Your task to perform on an android device: Open Amazon Image 0: 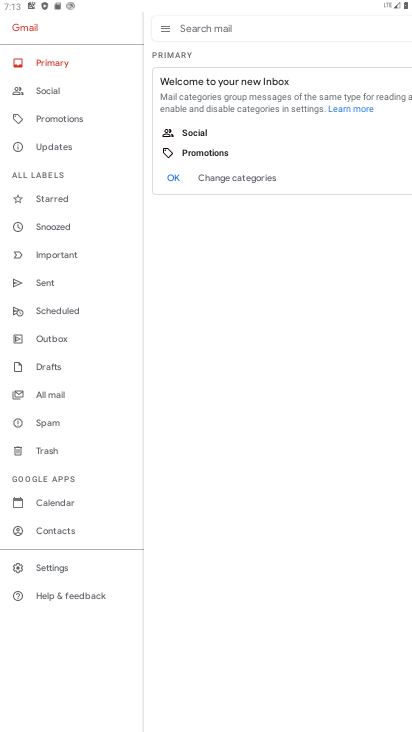
Step 0: press home button
Your task to perform on an android device: Open Amazon Image 1: 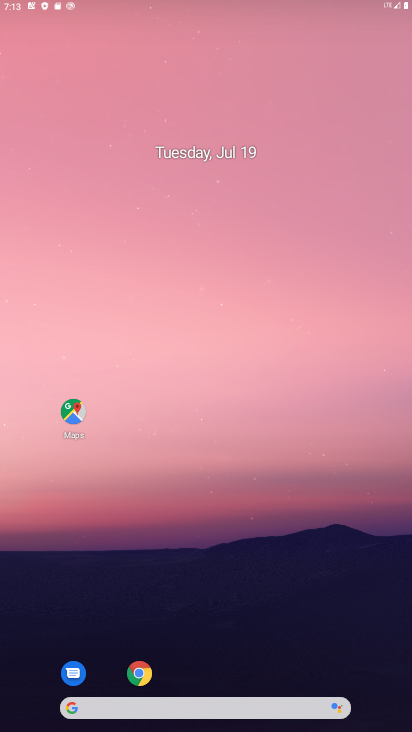
Step 1: drag from (341, 457) to (279, 9)
Your task to perform on an android device: Open Amazon Image 2: 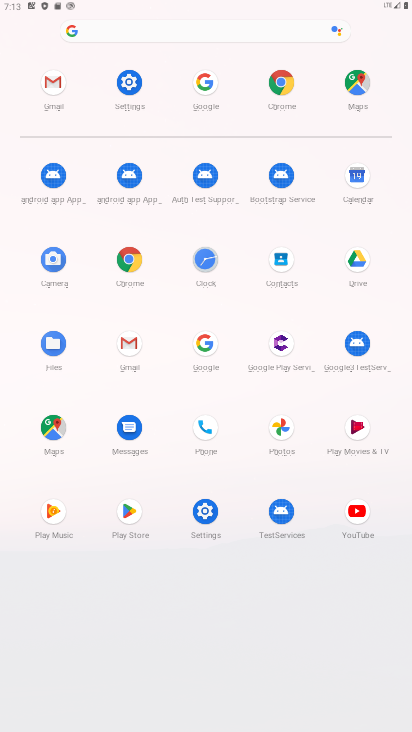
Step 2: click (206, 356)
Your task to perform on an android device: Open Amazon Image 3: 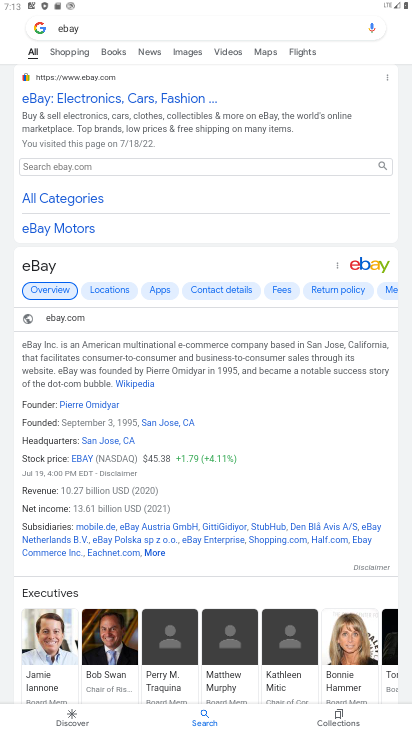
Step 3: press back button
Your task to perform on an android device: Open Amazon Image 4: 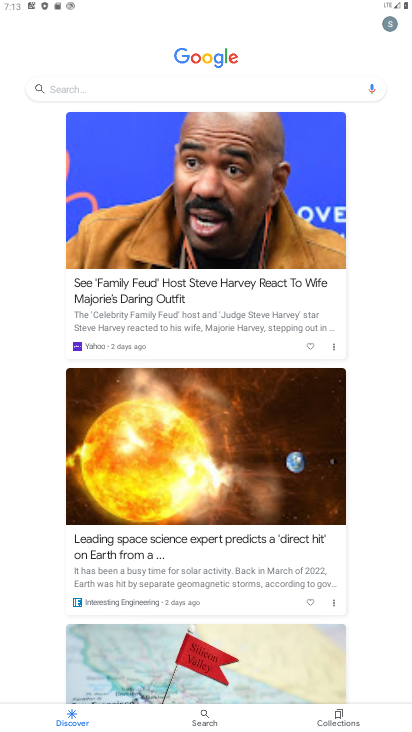
Step 4: click (85, 82)
Your task to perform on an android device: Open Amazon Image 5: 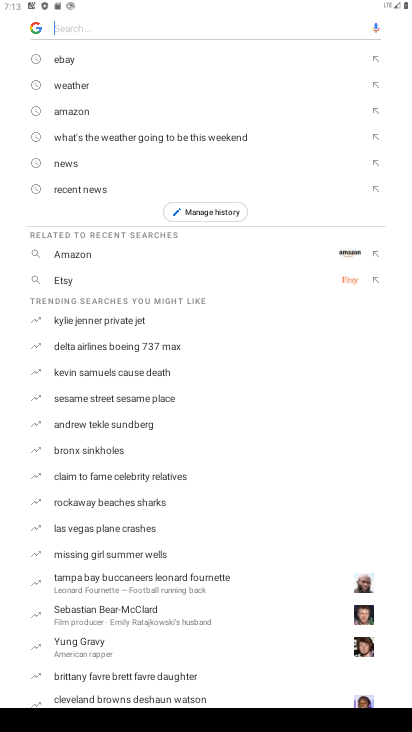
Step 5: click (93, 107)
Your task to perform on an android device: Open Amazon Image 6: 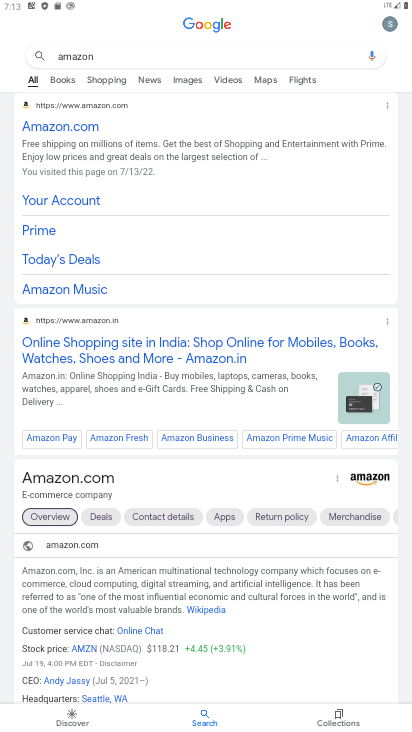
Step 6: task complete